Your task to perform on an android device: toggle improve location accuracy Image 0: 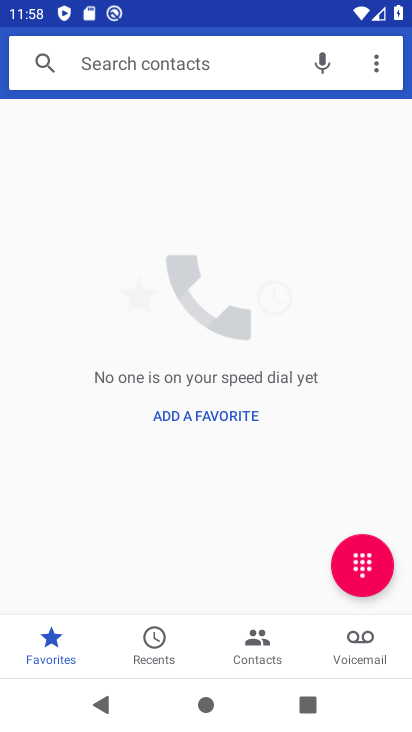
Step 0: press home button
Your task to perform on an android device: toggle improve location accuracy Image 1: 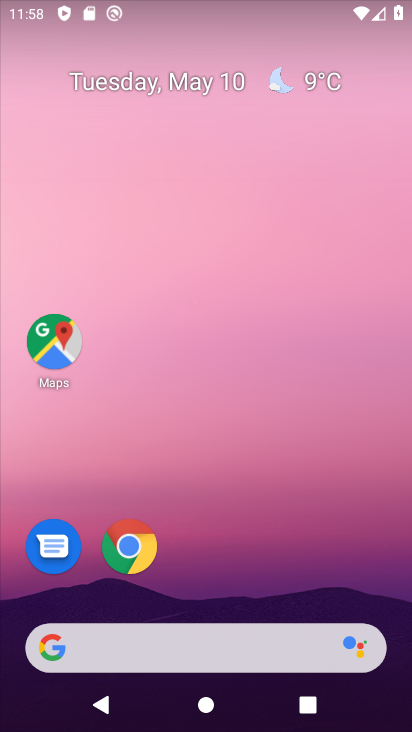
Step 1: drag from (182, 568) to (250, 78)
Your task to perform on an android device: toggle improve location accuracy Image 2: 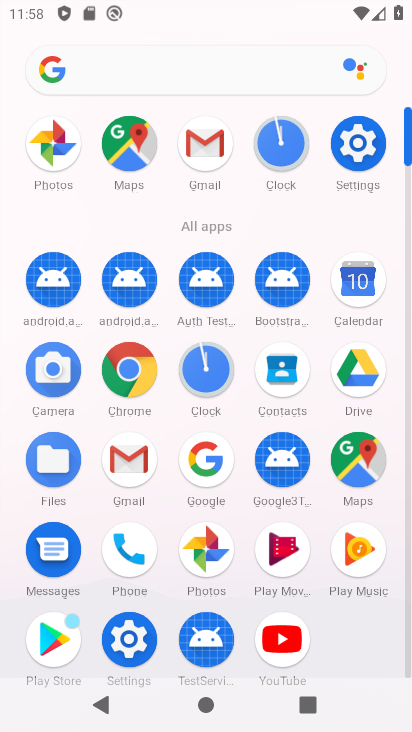
Step 2: click (356, 143)
Your task to perform on an android device: toggle improve location accuracy Image 3: 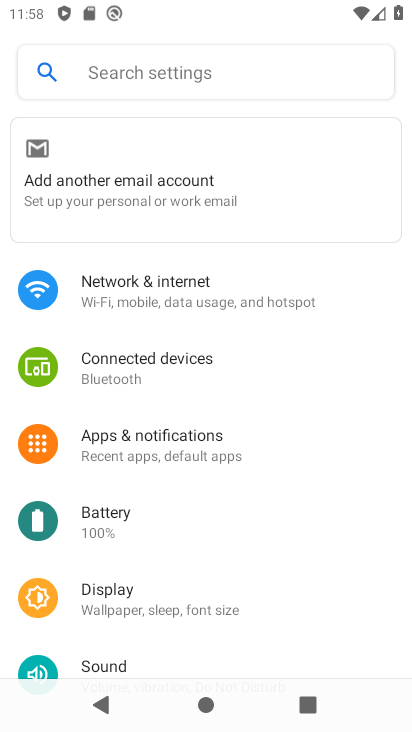
Step 3: drag from (185, 610) to (300, 199)
Your task to perform on an android device: toggle improve location accuracy Image 4: 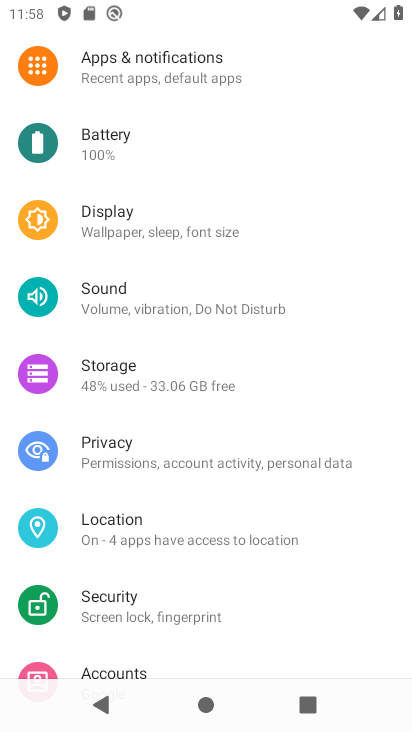
Step 4: click (151, 534)
Your task to perform on an android device: toggle improve location accuracy Image 5: 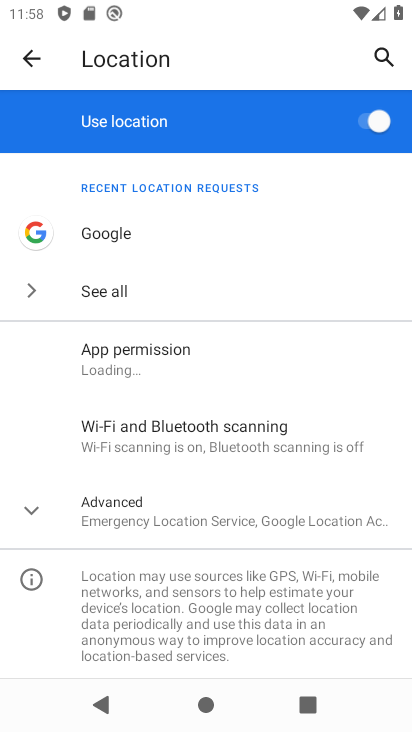
Step 5: click (143, 523)
Your task to perform on an android device: toggle improve location accuracy Image 6: 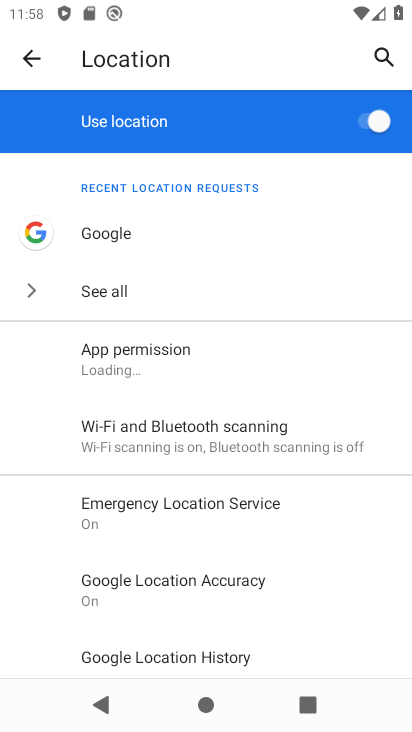
Step 6: click (153, 583)
Your task to perform on an android device: toggle improve location accuracy Image 7: 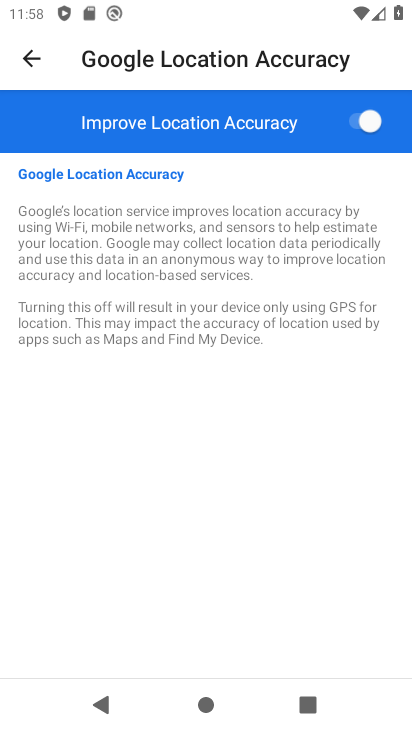
Step 7: click (358, 125)
Your task to perform on an android device: toggle improve location accuracy Image 8: 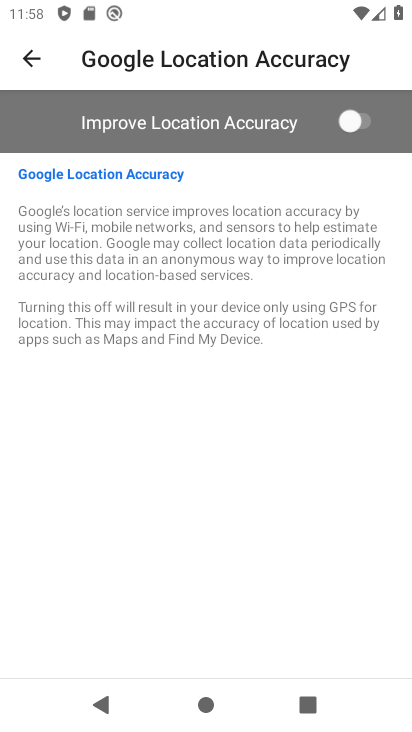
Step 8: task complete